Your task to perform on an android device: Search for pizza restaurants on Maps Image 0: 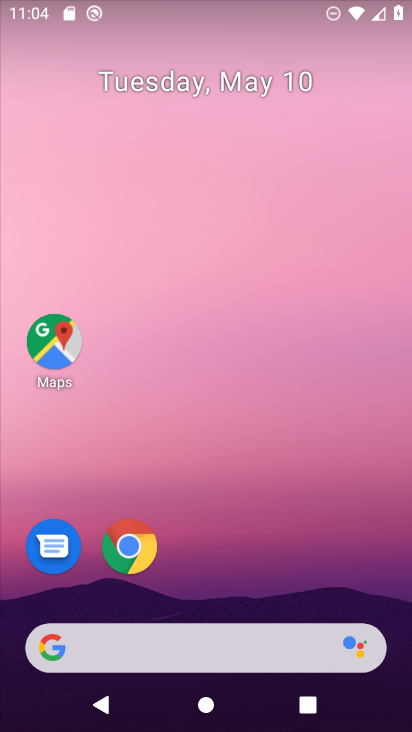
Step 0: click (57, 340)
Your task to perform on an android device: Search for pizza restaurants on Maps Image 1: 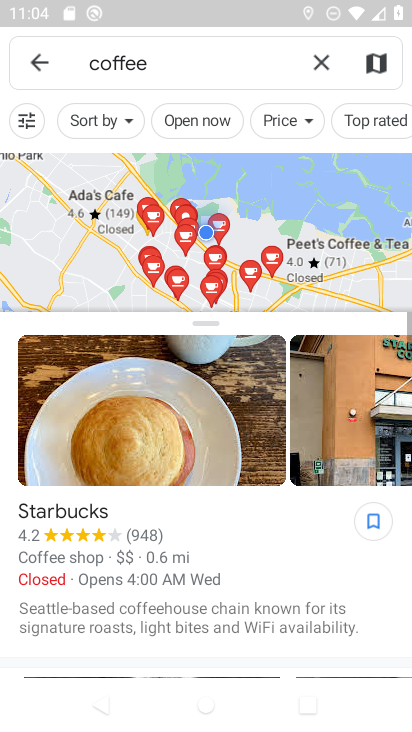
Step 1: click (217, 64)
Your task to perform on an android device: Search for pizza restaurants on Maps Image 2: 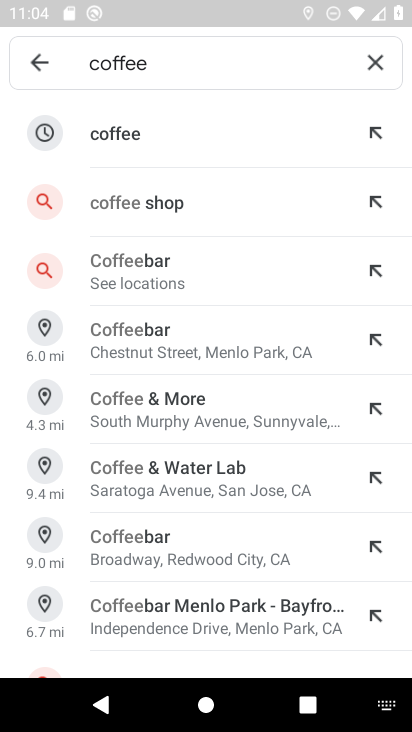
Step 2: click (380, 53)
Your task to perform on an android device: Search for pizza restaurants on Maps Image 3: 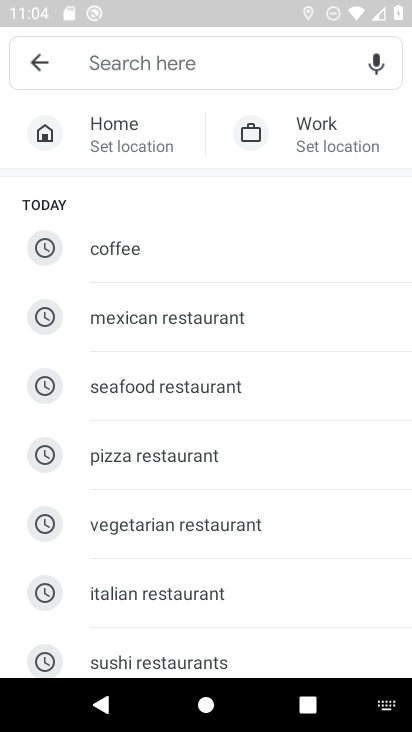
Step 3: type "pizza restaurants"
Your task to perform on an android device: Search for pizza restaurants on Maps Image 4: 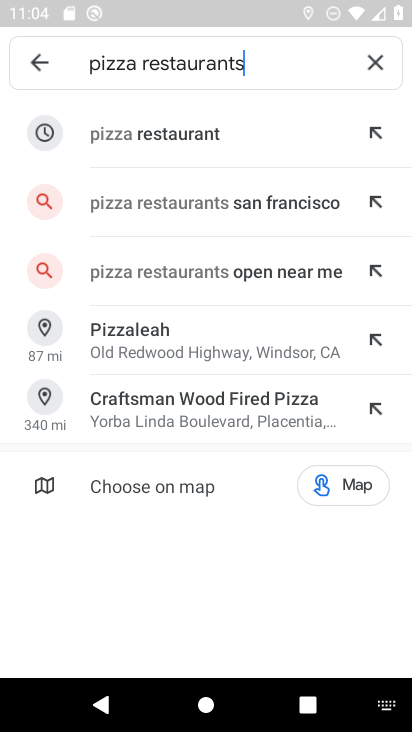
Step 4: press enter
Your task to perform on an android device: Search for pizza restaurants on Maps Image 5: 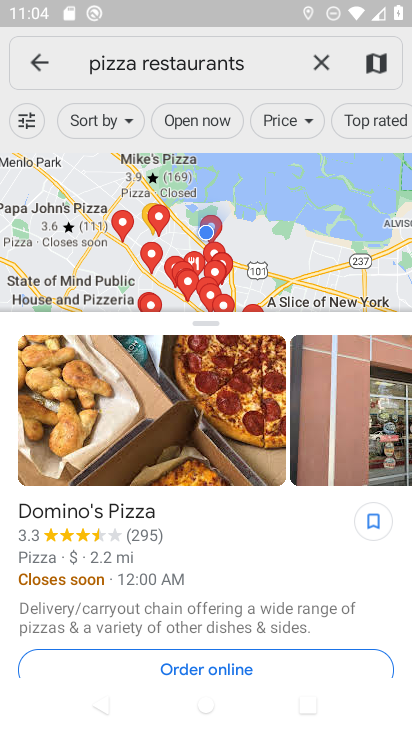
Step 5: task complete